Your task to perform on an android device: change notification settings in the gmail app Image 0: 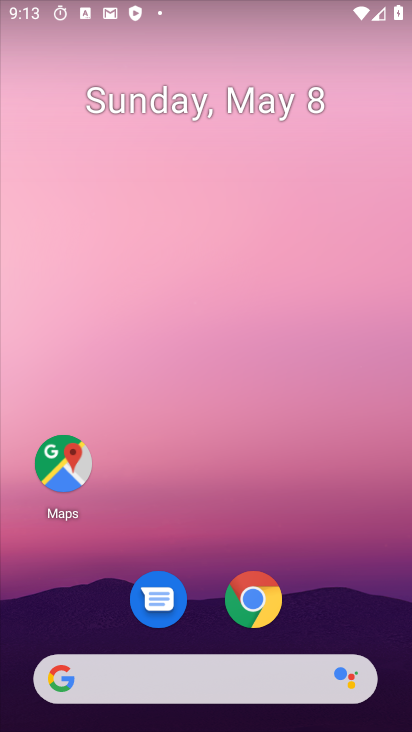
Step 0: drag from (239, 589) to (256, 199)
Your task to perform on an android device: change notification settings in the gmail app Image 1: 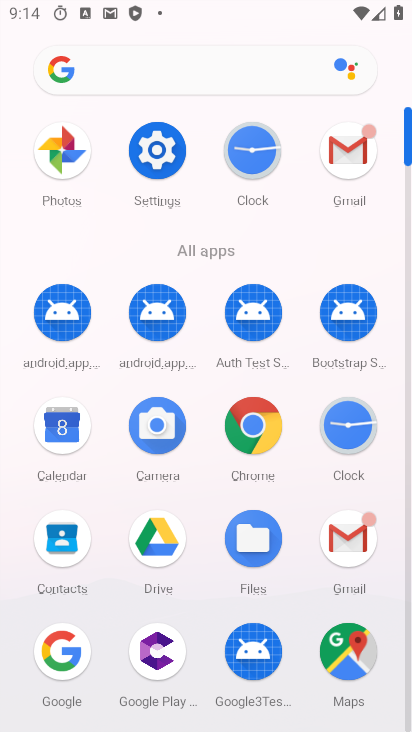
Step 1: click (358, 539)
Your task to perform on an android device: change notification settings in the gmail app Image 2: 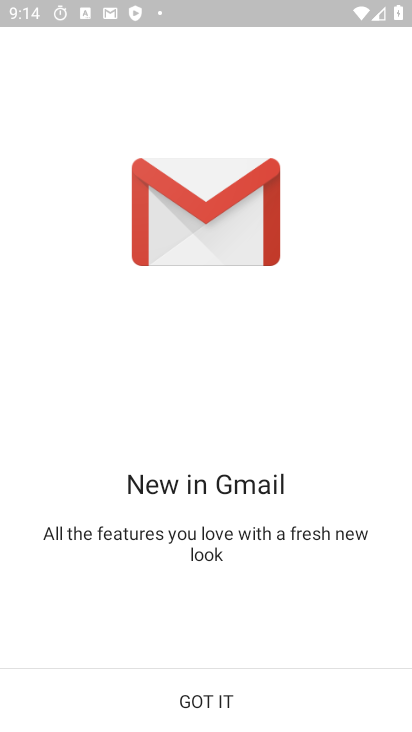
Step 2: click (270, 695)
Your task to perform on an android device: change notification settings in the gmail app Image 3: 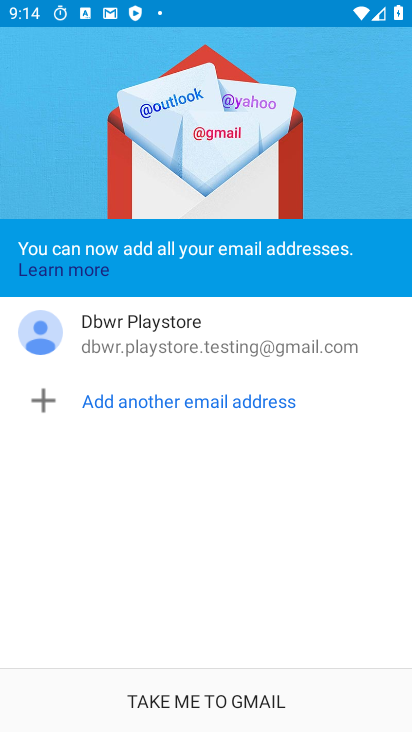
Step 3: click (183, 707)
Your task to perform on an android device: change notification settings in the gmail app Image 4: 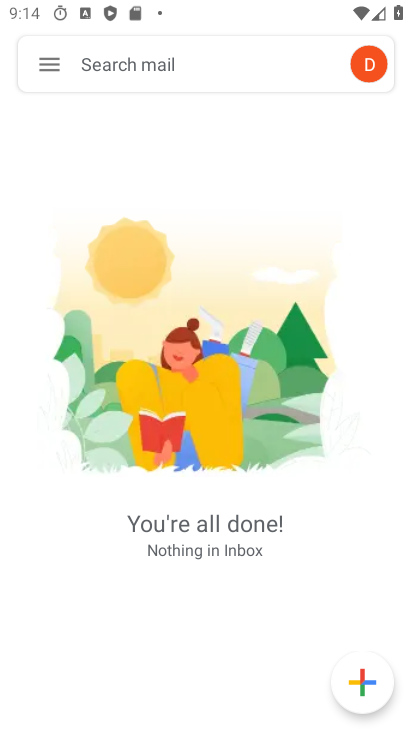
Step 4: click (41, 64)
Your task to perform on an android device: change notification settings in the gmail app Image 5: 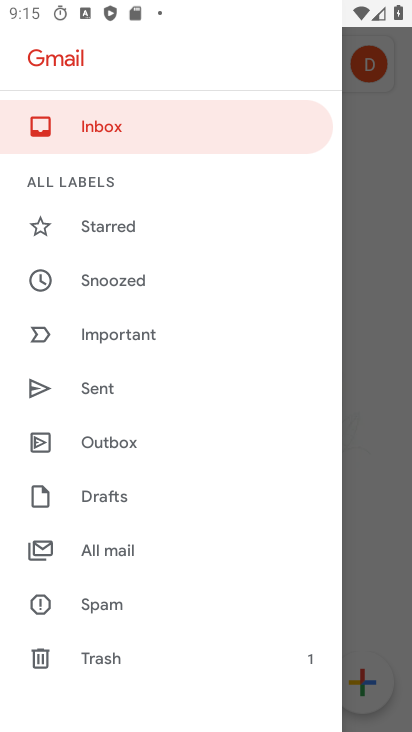
Step 5: drag from (124, 499) to (154, 163)
Your task to perform on an android device: change notification settings in the gmail app Image 6: 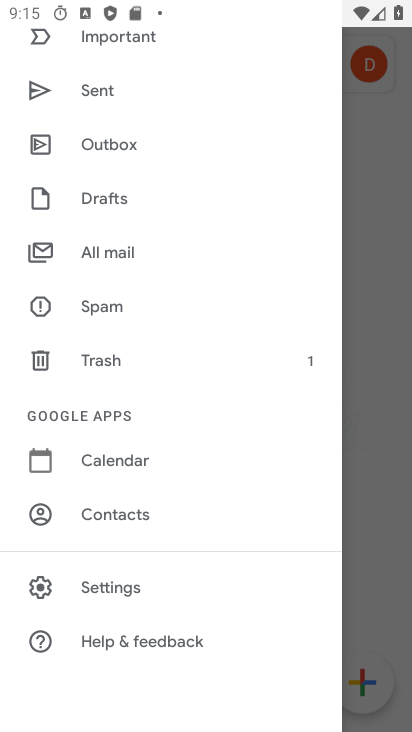
Step 6: click (116, 582)
Your task to perform on an android device: change notification settings in the gmail app Image 7: 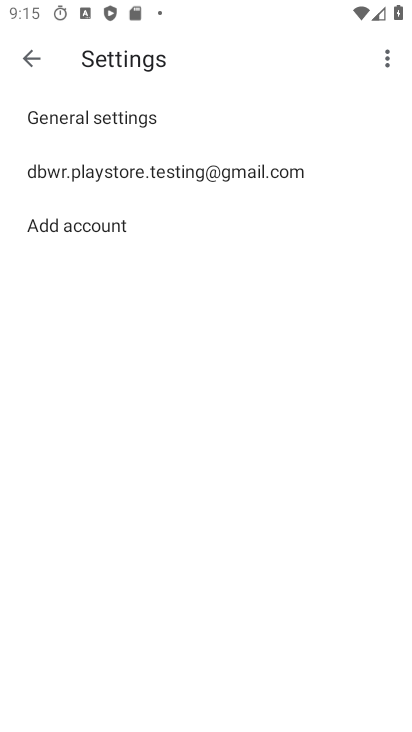
Step 7: click (140, 116)
Your task to perform on an android device: change notification settings in the gmail app Image 8: 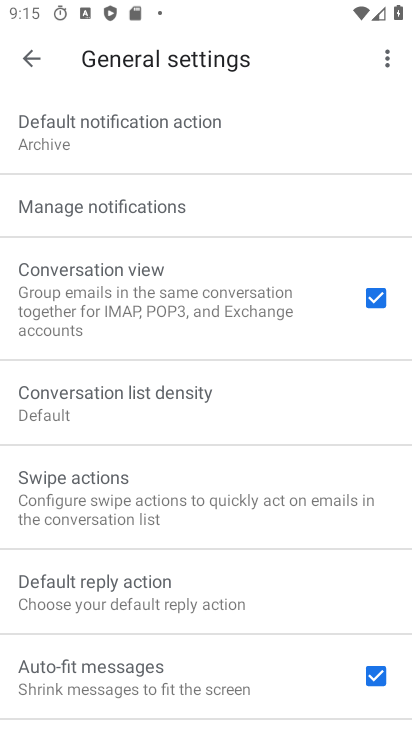
Step 8: click (79, 217)
Your task to perform on an android device: change notification settings in the gmail app Image 9: 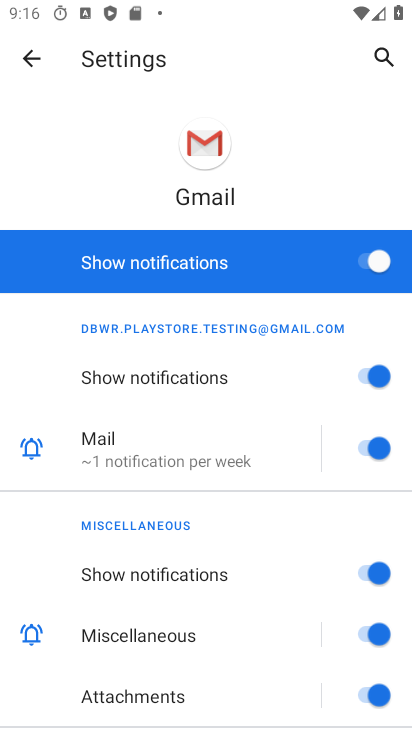
Step 9: click (372, 259)
Your task to perform on an android device: change notification settings in the gmail app Image 10: 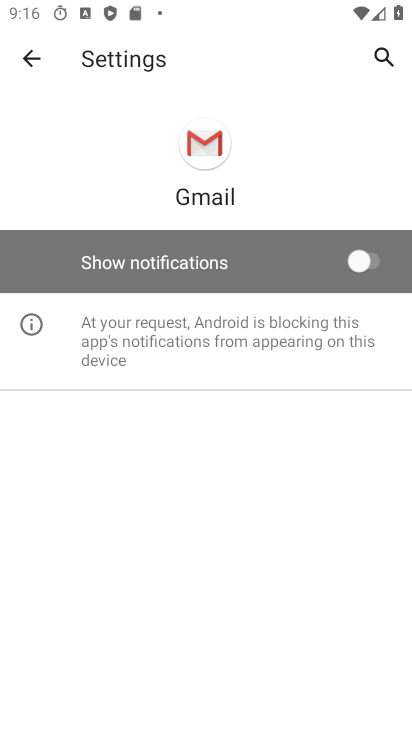
Step 10: task complete